Your task to perform on an android device: turn off data saver in the chrome app Image 0: 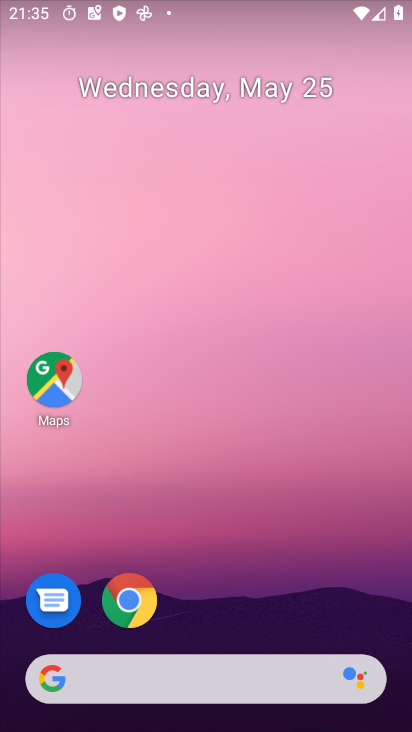
Step 0: drag from (263, 626) to (321, 30)
Your task to perform on an android device: turn off data saver in the chrome app Image 1: 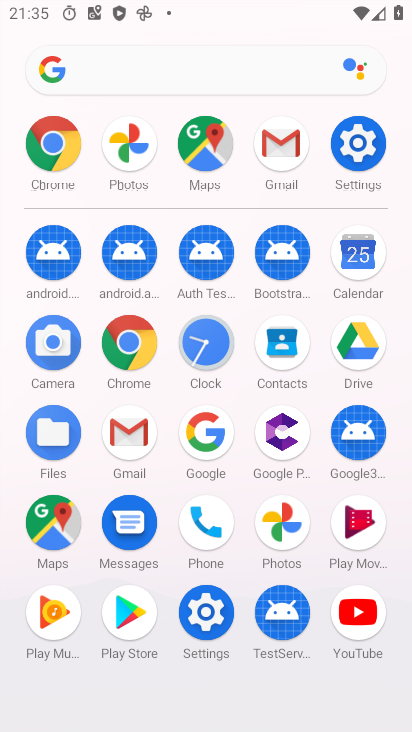
Step 1: click (133, 335)
Your task to perform on an android device: turn off data saver in the chrome app Image 2: 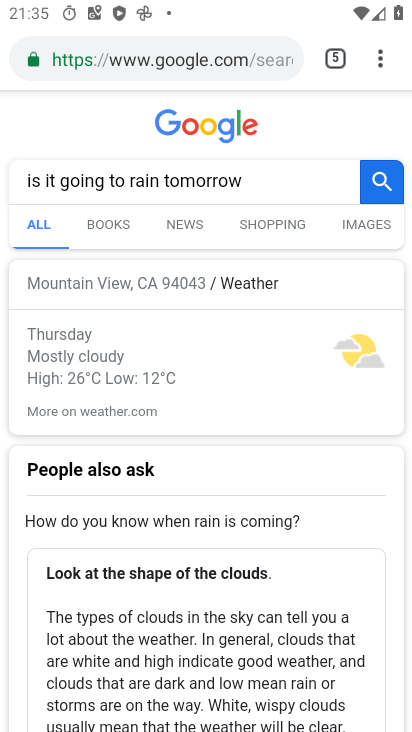
Step 2: drag from (384, 40) to (155, 633)
Your task to perform on an android device: turn off data saver in the chrome app Image 3: 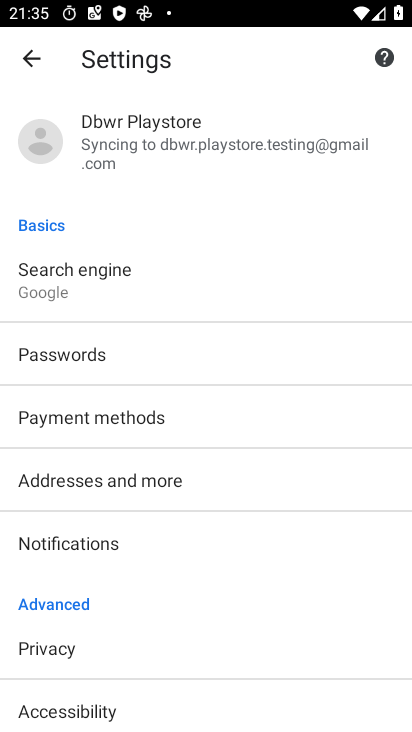
Step 3: drag from (143, 710) to (251, 347)
Your task to perform on an android device: turn off data saver in the chrome app Image 4: 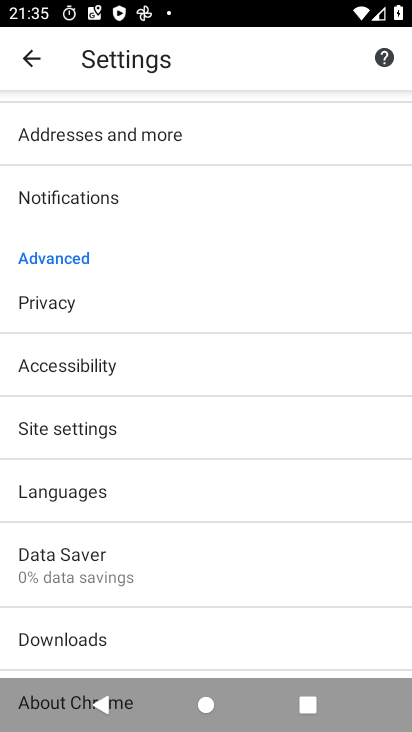
Step 4: click (132, 570)
Your task to perform on an android device: turn off data saver in the chrome app Image 5: 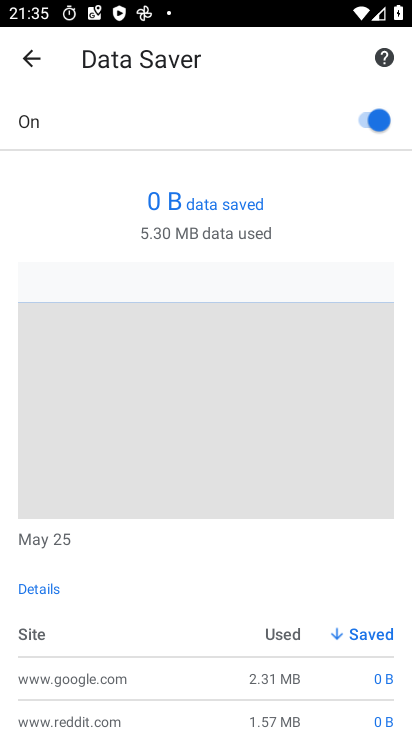
Step 5: click (362, 120)
Your task to perform on an android device: turn off data saver in the chrome app Image 6: 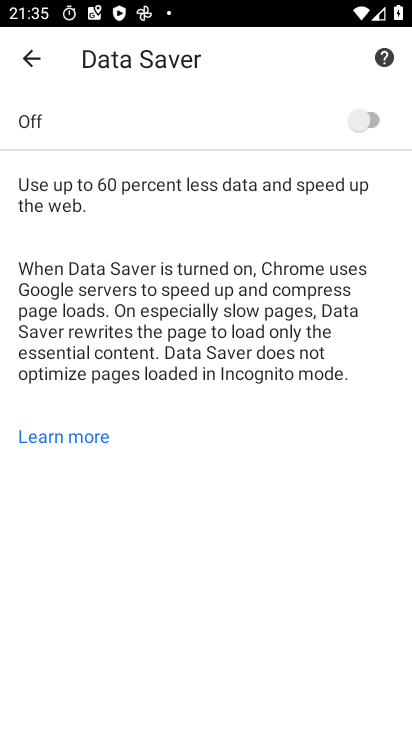
Step 6: task complete